Your task to perform on an android device: Go to Yahoo.com Image 0: 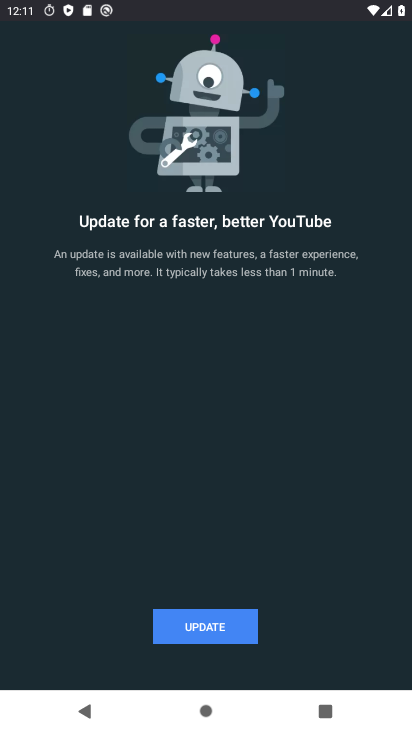
Step 0: press home button
Your task to perform on an android device: Go to Yahoo.com Image 1: 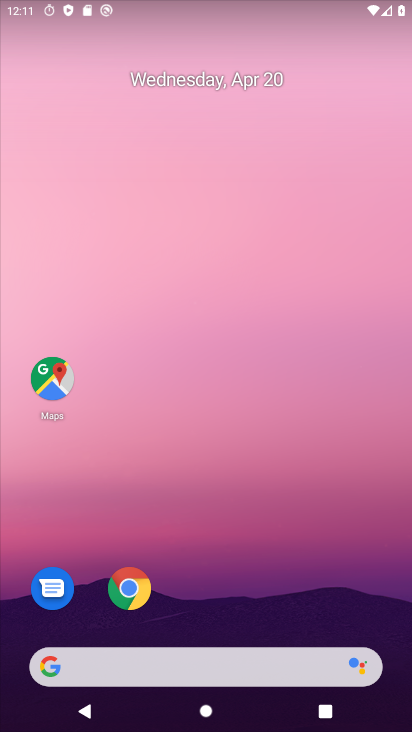
Step 1: click (144, 596)
Your task to perform on an android device: Go to Yahoo.com Image 2: 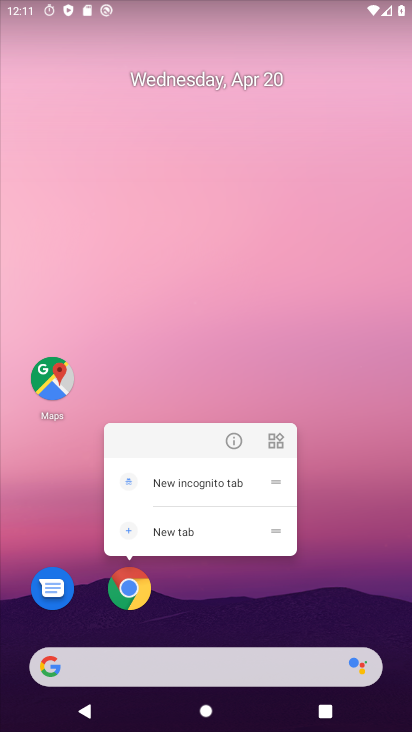
Step 2: click (136, 595)
Your task to perform on an android device: Go to Yahoo.com Image 3: 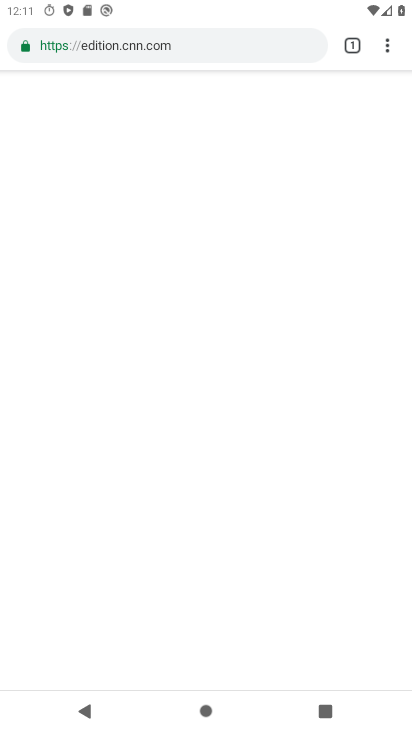
Step 3: click (355, 56)
Your task to perform on an android device: Go to Yahoo.com Image 4: 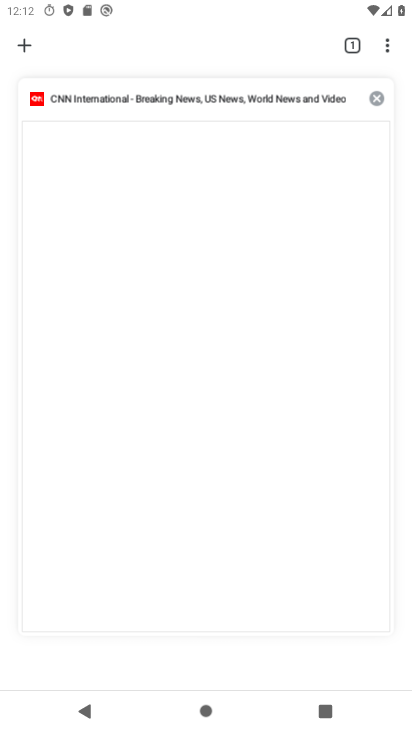
Step 4: click (24, 31)
Your task to perform on an android device: Go to Yahoo.com Image 5: 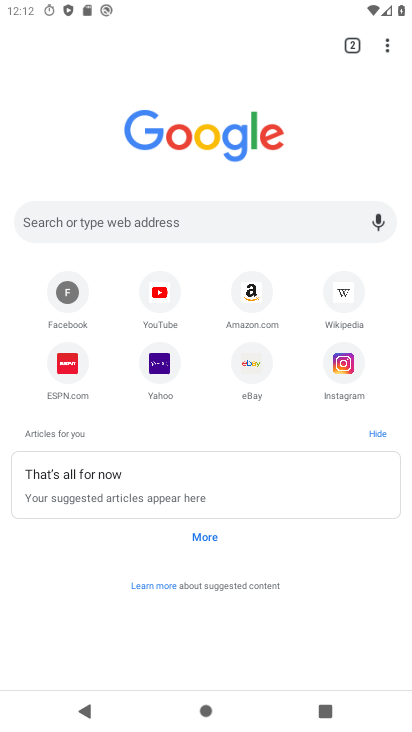
Step 5: click (158, 353)
Your task to perform on an android device: Go to Yahoo.com Image 6: 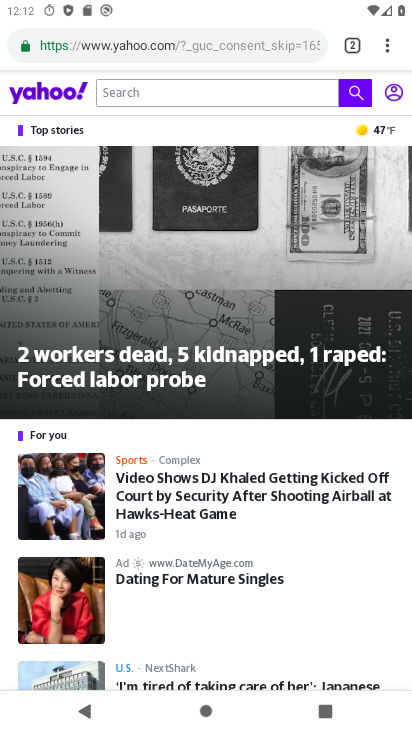
Step 6: task complete